Your task to perform on an android device: Is it going to rain today? Image 0: 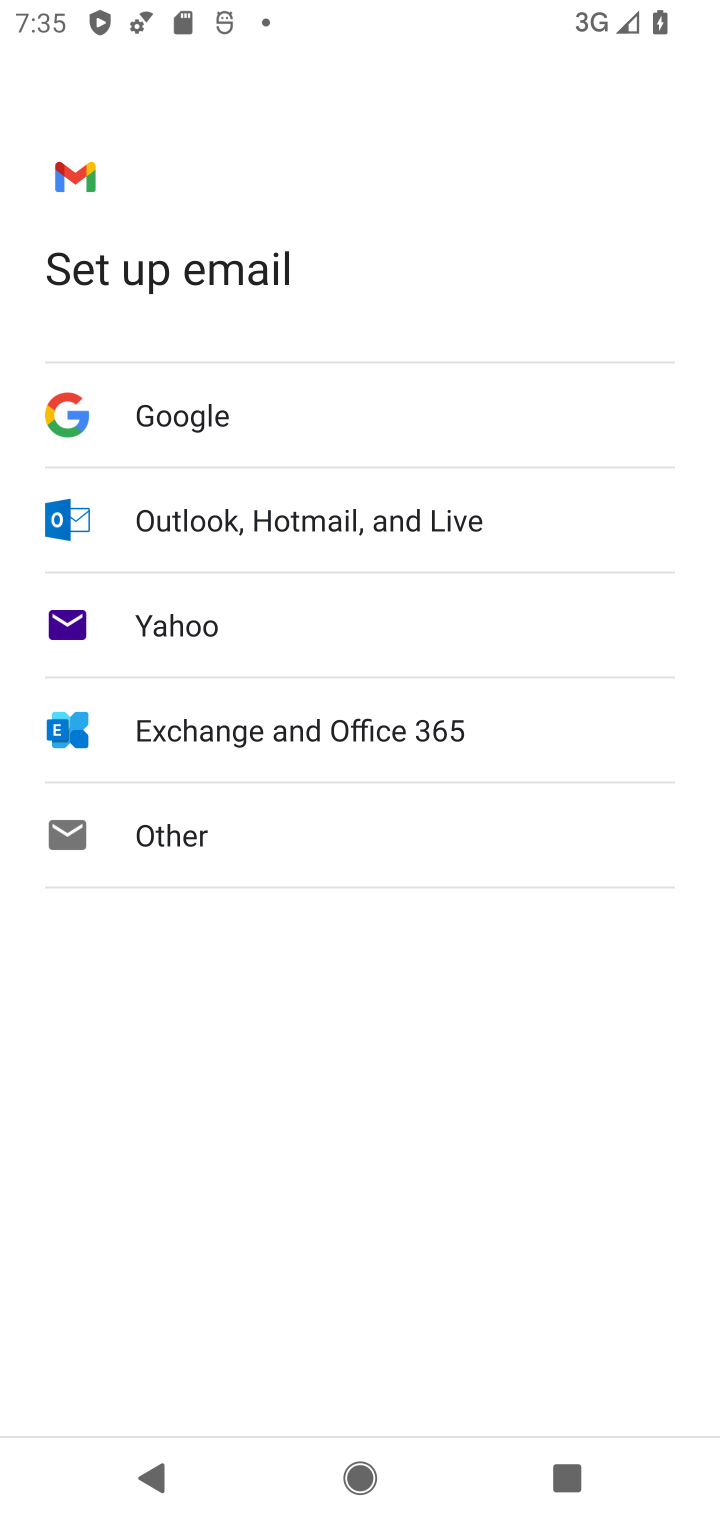
Step 0: press home button
Your task to perform on an android device: Is it going to rain today? Image 1: 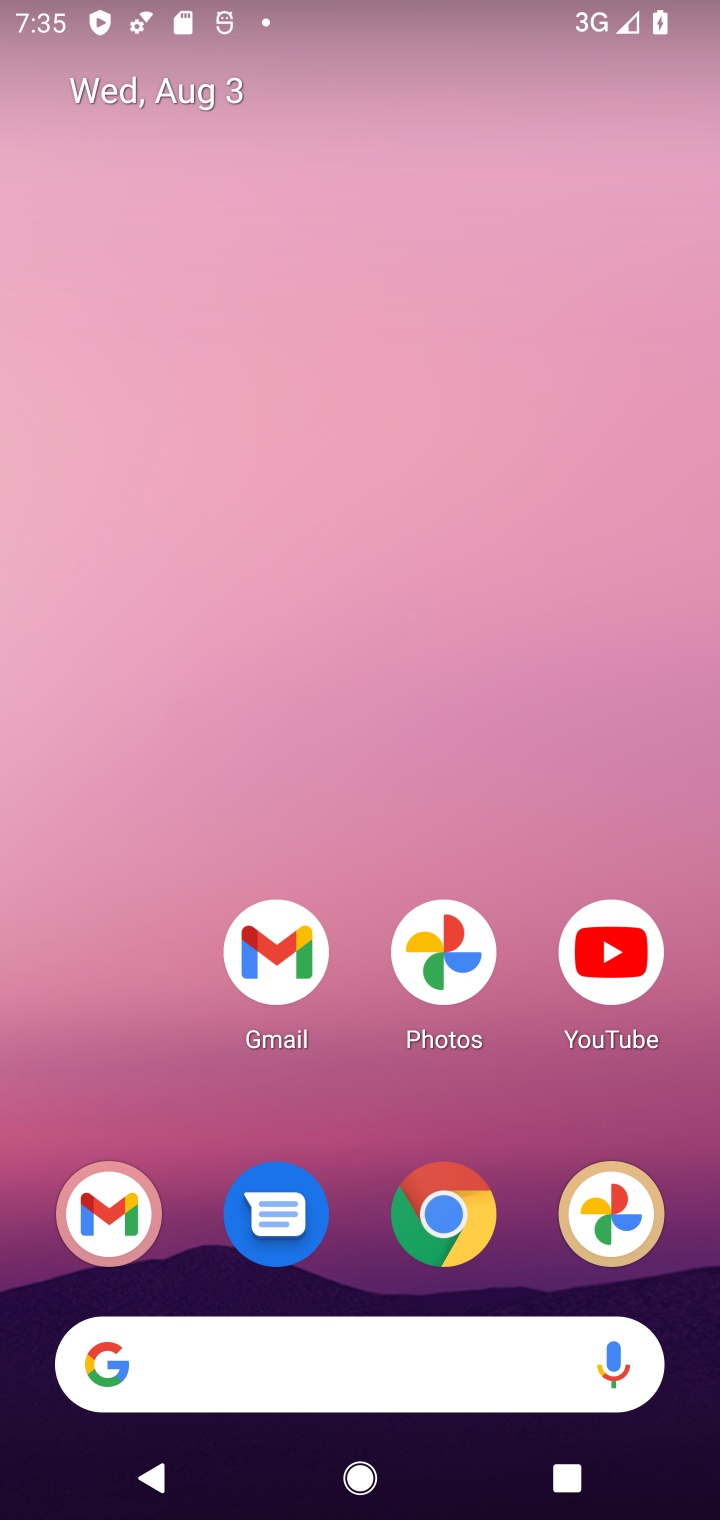
Step 1: drag from (101, 991) to (62, 64)
Your task to perform on an android device: Is it going to rain today? Image 2: 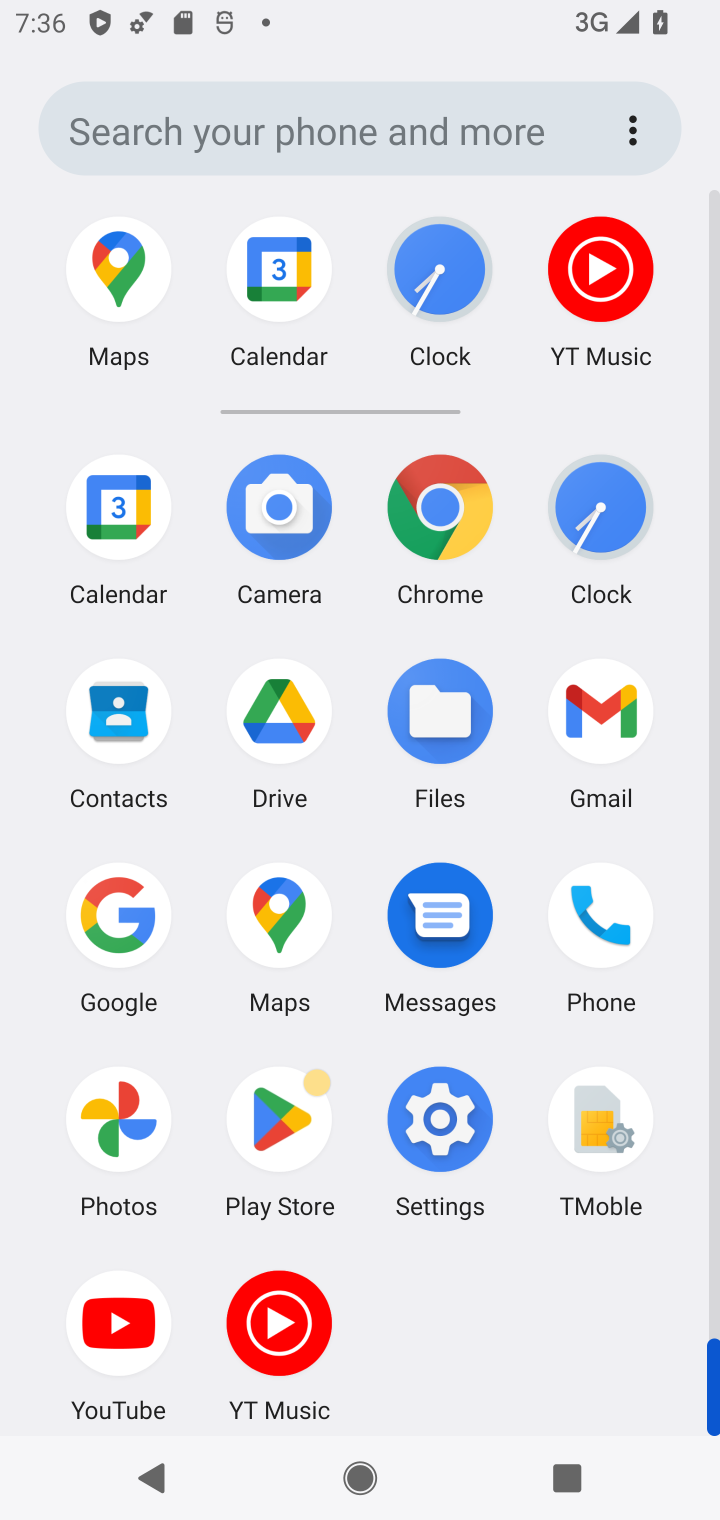
Step 2: click (121, 949)
Your task to perform on an android device: Is it going to rain today? Image 3: 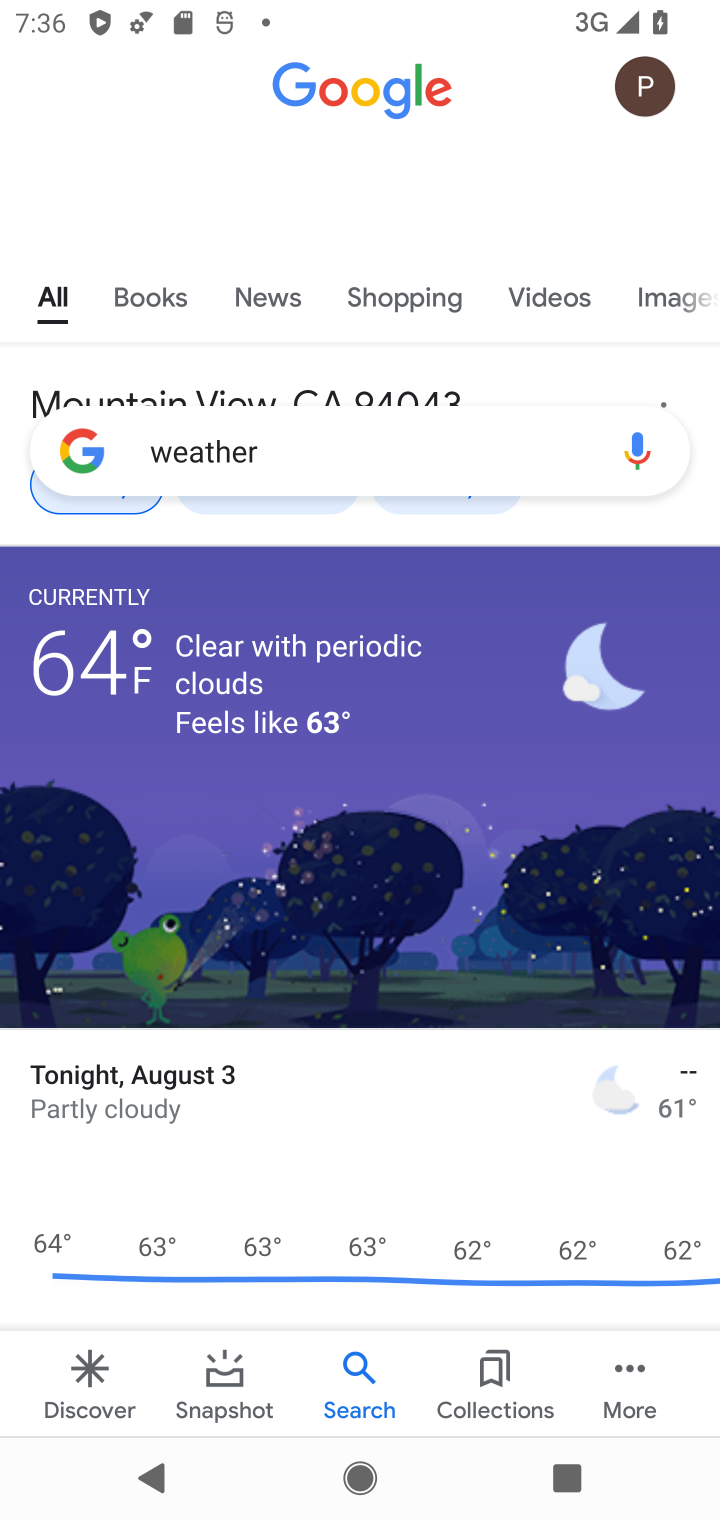
Step 3: task complete